Your task to perform on an android device: turn off smart reply in the gmail app Image 0: 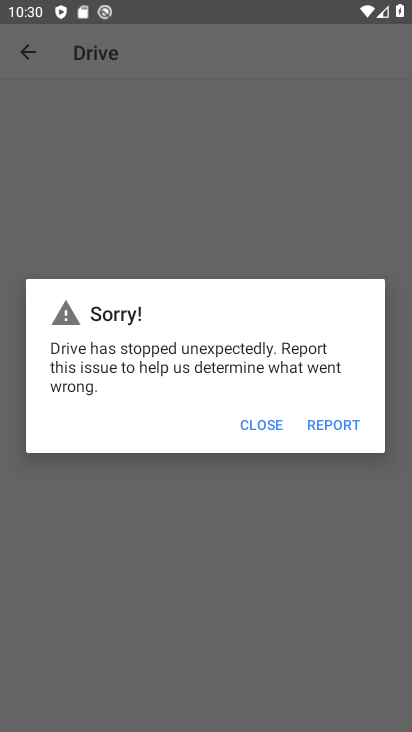
Step 0: press home button
Your task to perform on an android device: turn off smart reply in the gmail app Image 1: 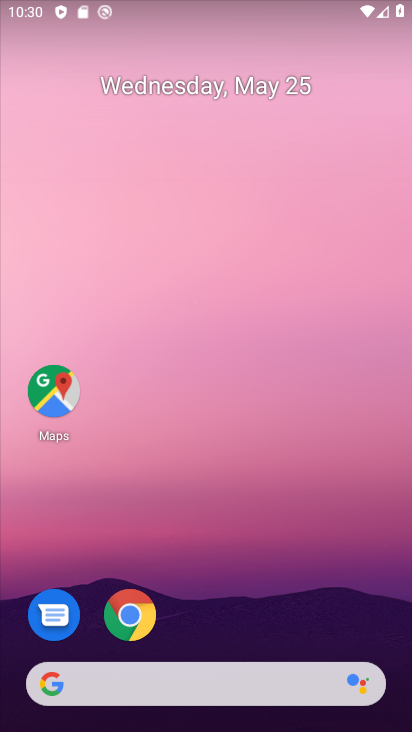
Step 1: drag from (282, 605) to (324, 102)
Your task to perform on an android device: turn off smart reply in the gmail app Image 2: 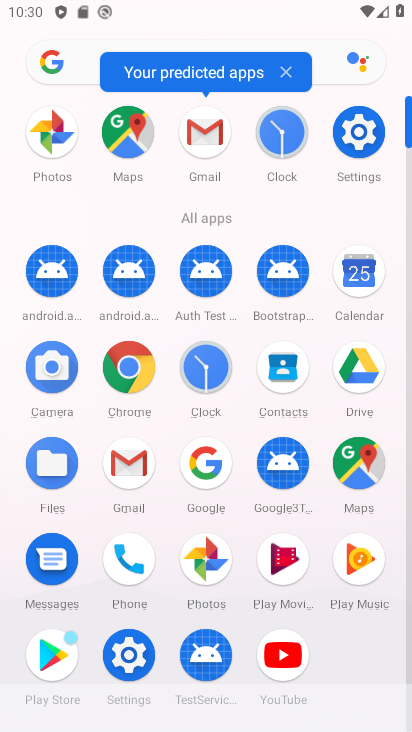
Step 2: click (213, 124)
Your task to perform on an android device: turn off smart reply in the gmail app Image 3: 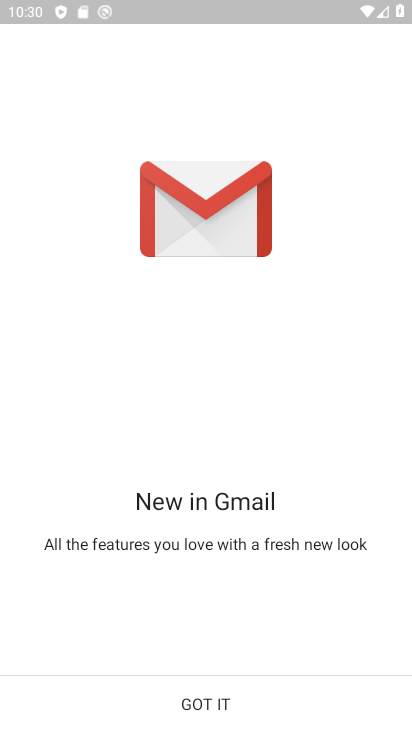
Step 3: click (199, 705)
Your task to perform on an android device: turn off smart reply in the gmail app Image 4: 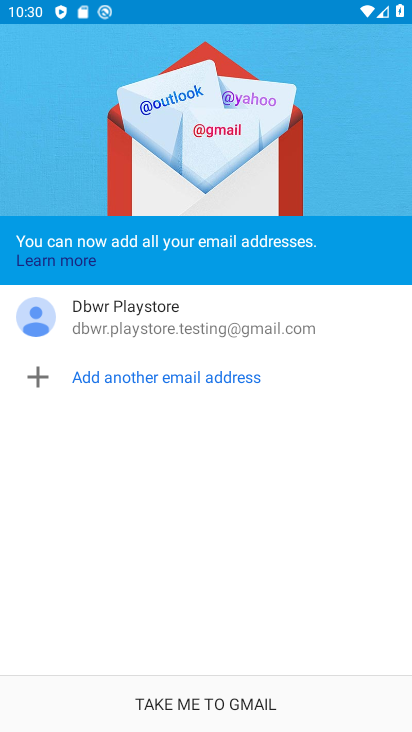
Step 4: click (225, 703)
Your task to perform on an android device: turn off smart reply in the gmail app Image 5: 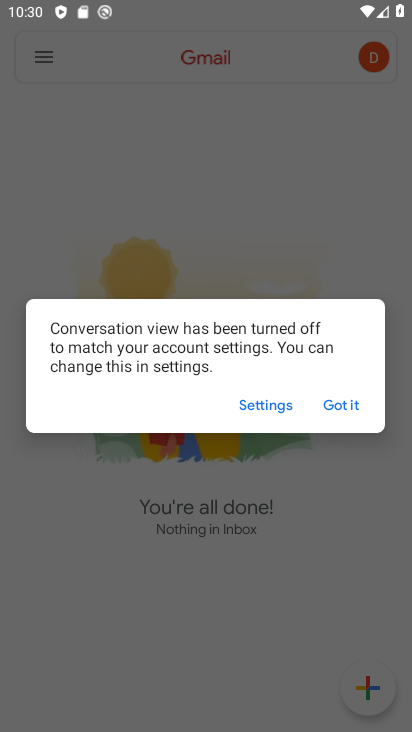
Step 5: click (324, 406)
Your task to perform on an android device: turn off smart reply in the gmail app Image 6: 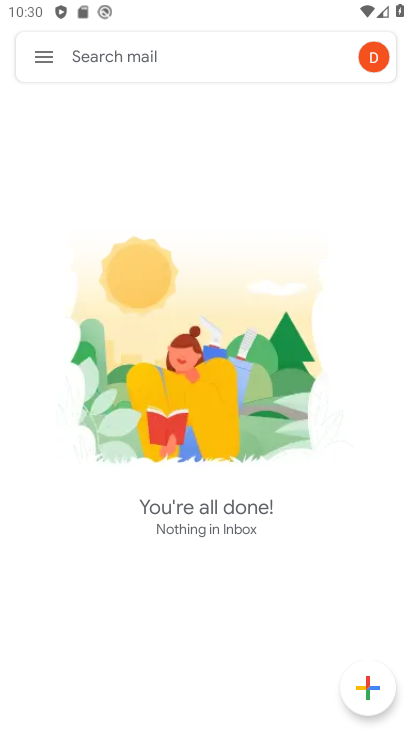
Step 6: click (47, 56)
Your task to perform on an android device: turn off smart reply in the gmail app Image 7: 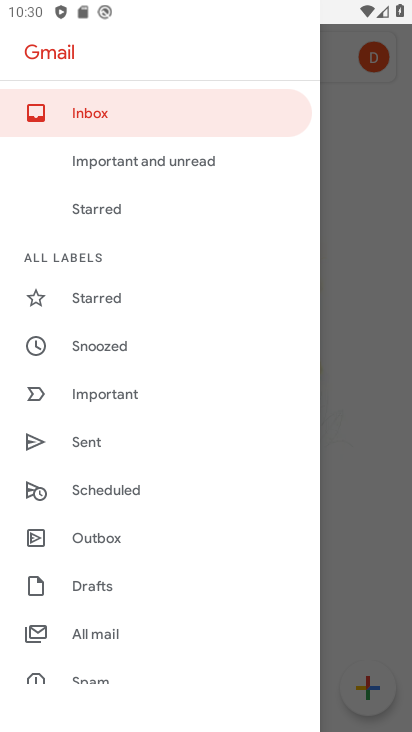
Step 7: drag from (187, 658) to (189, 249)
Your task to perform on an android device: turn off smart reply in the gmail app Image 8: 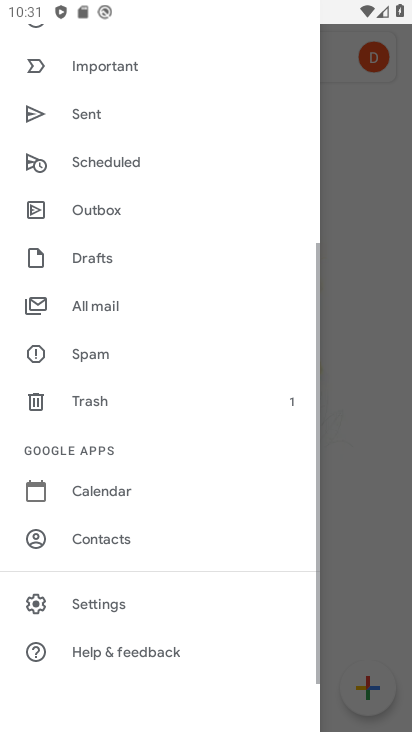
Step 8: click (84, 602)
Your task to perform on an android device: turn off smart reply in the gmail app Image 9: 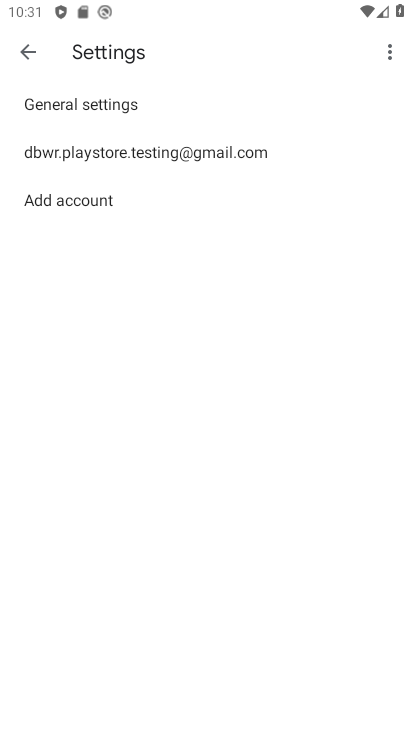
Step 9: click (185, 155)
Your task to perform on an android device: turn off smart reply in the gmail app Image 10: 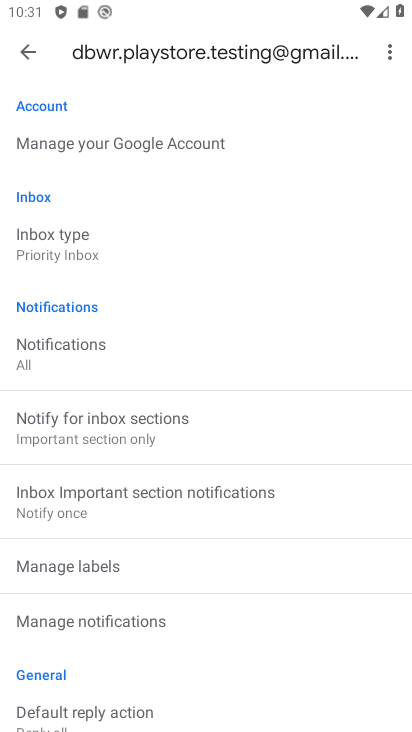
Step 10: drag from (252, 639) to (247, 292)
Your task to perform on an android device: turn off smart reply in the gmail app Image 11: 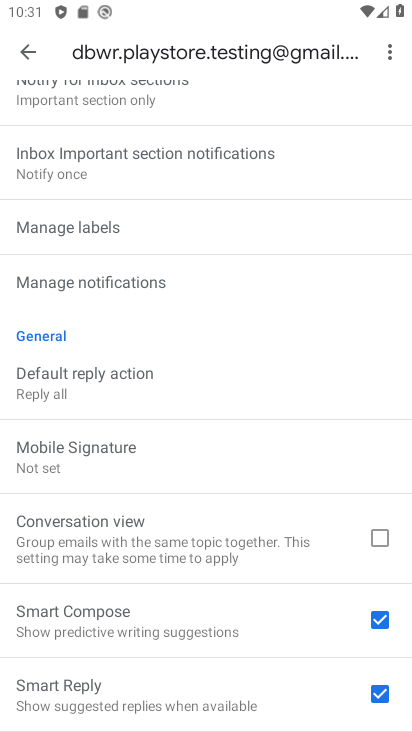
Step 11: click (387, 697)
Your task to perform on an android device: turn off smart reply in the gmail app Image 12: 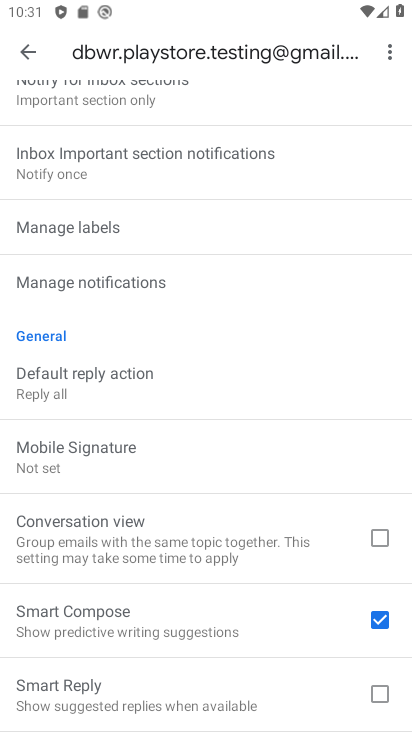
Step 12: task complete